Your task to perform on an android device: Search for hotels in Austin Image 0: 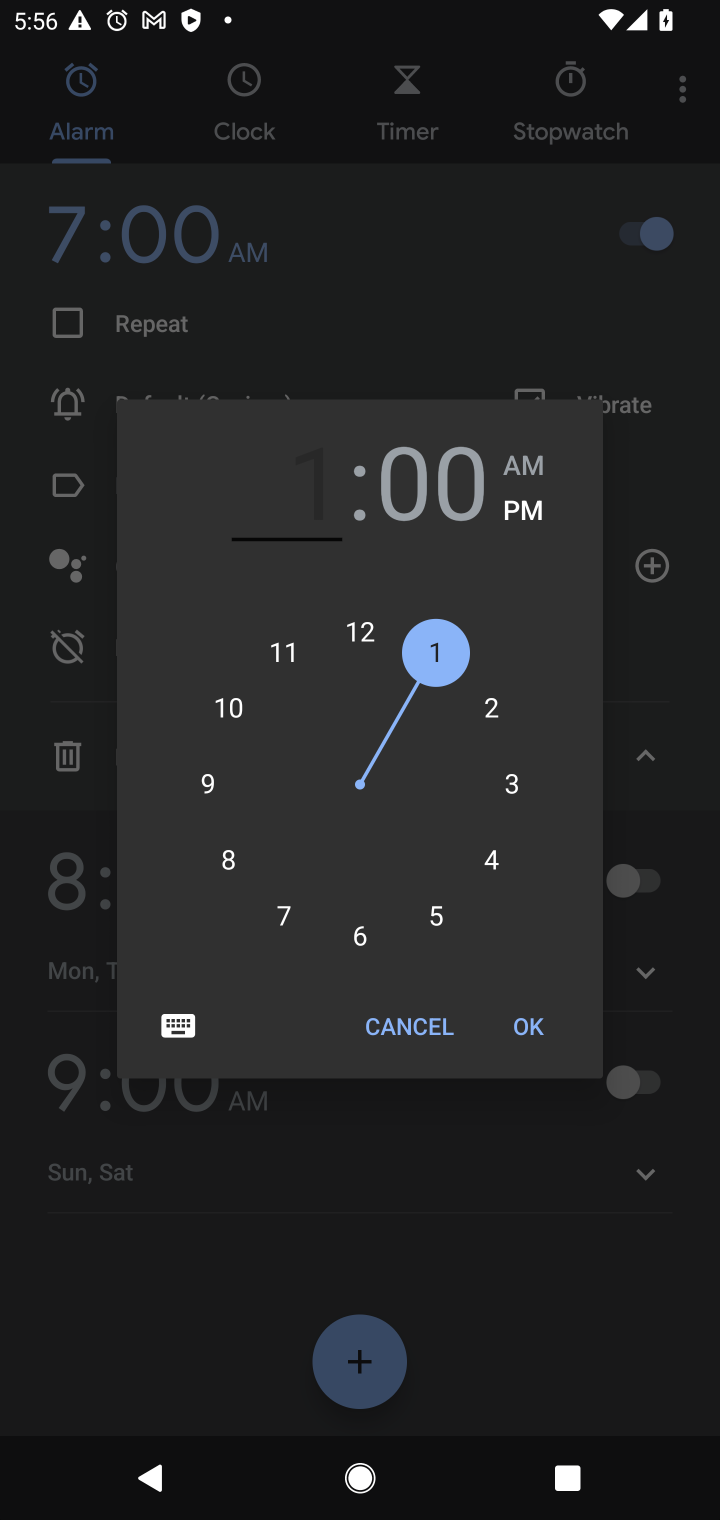
Step 0: press home button
Your task to perform on an android device: Search for hotels in Austin Image 1: 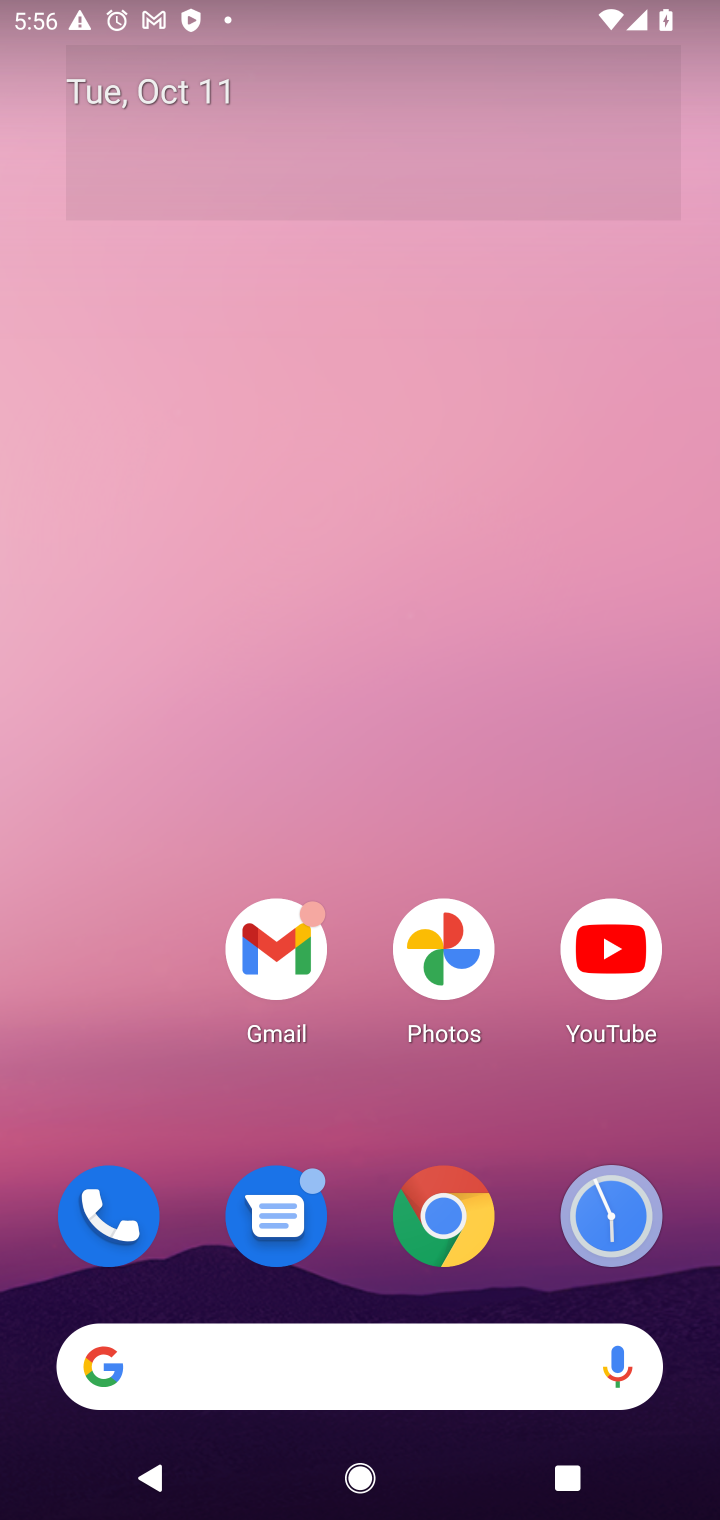
Step 1: click (415, 1217)
Your task to perform on an android device: Search for hotels in Austin Image 2: 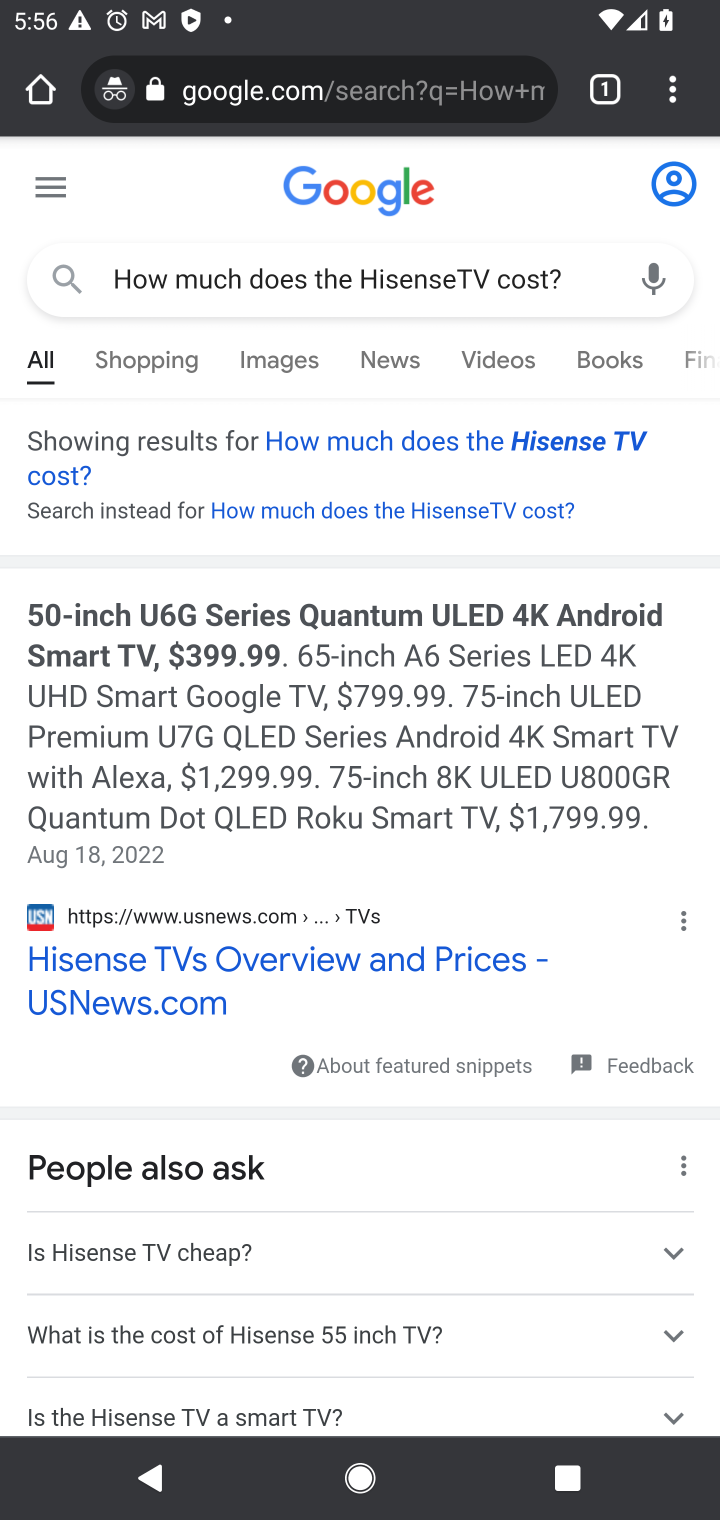
Step 2: click (429, 281)
Your task to perform on an android device: Search for hotels in Austin Image 3: 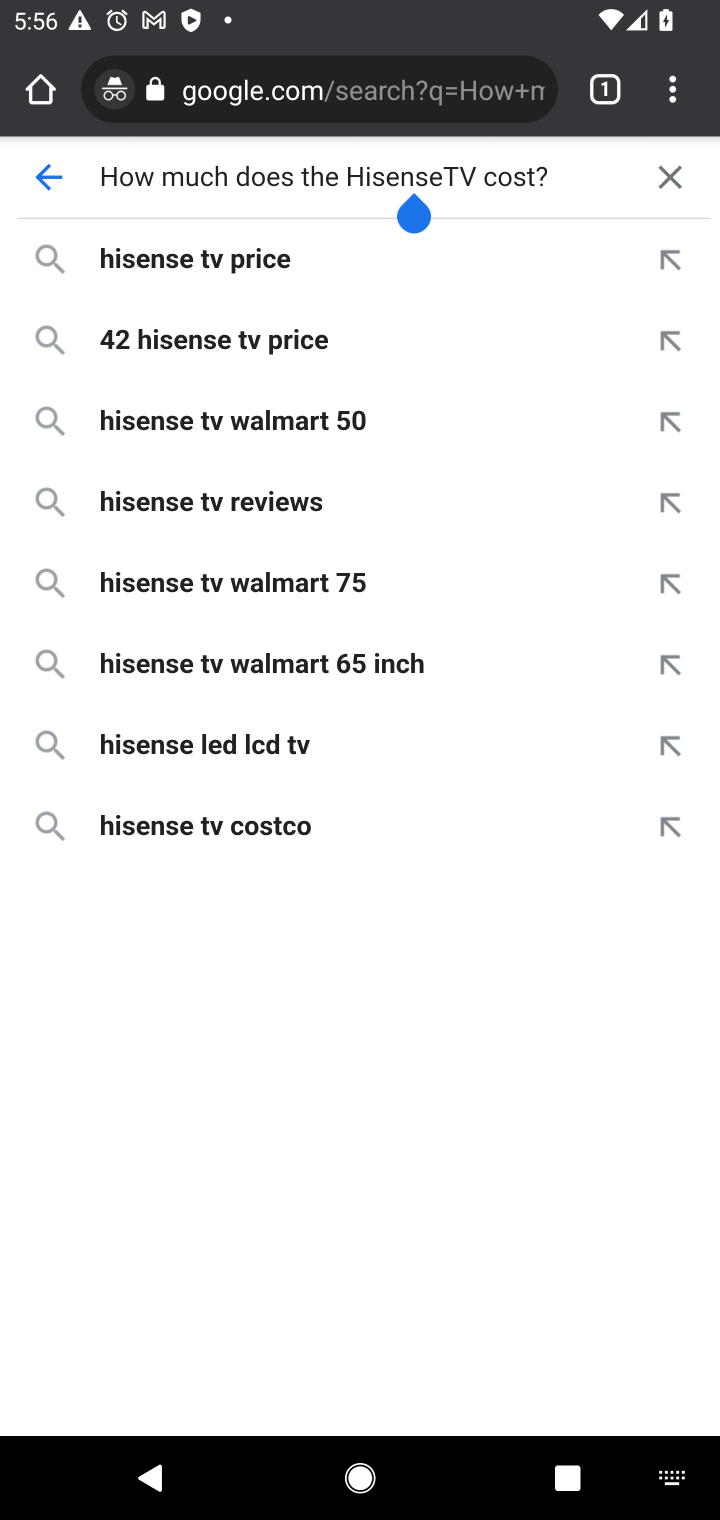
Step 3: click (674, 178)
Your task to perform on an android device: Search for hotels in Austin Image 4: 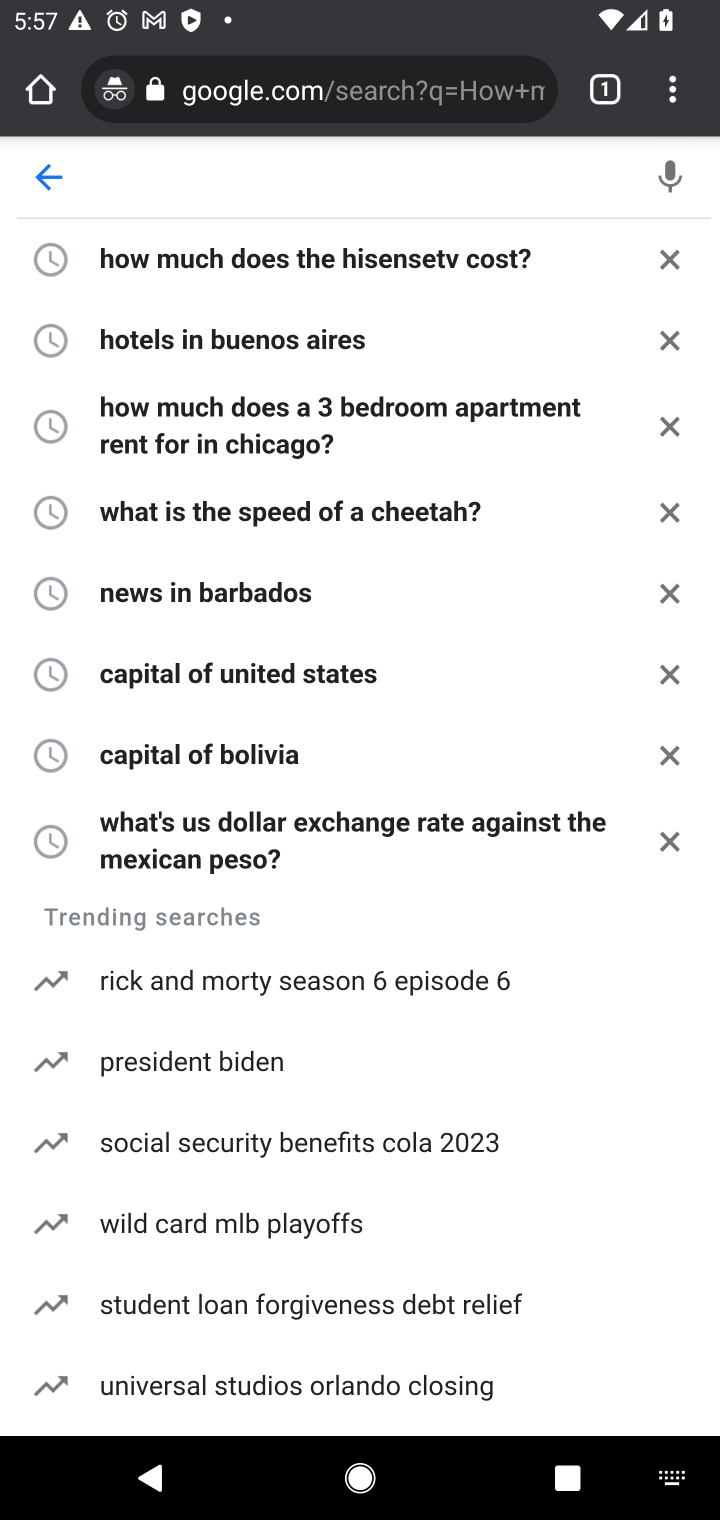
Step 4: type "hotels in Austin"
Your task to perform on an android device: Search for hotels in Austin Image 5: 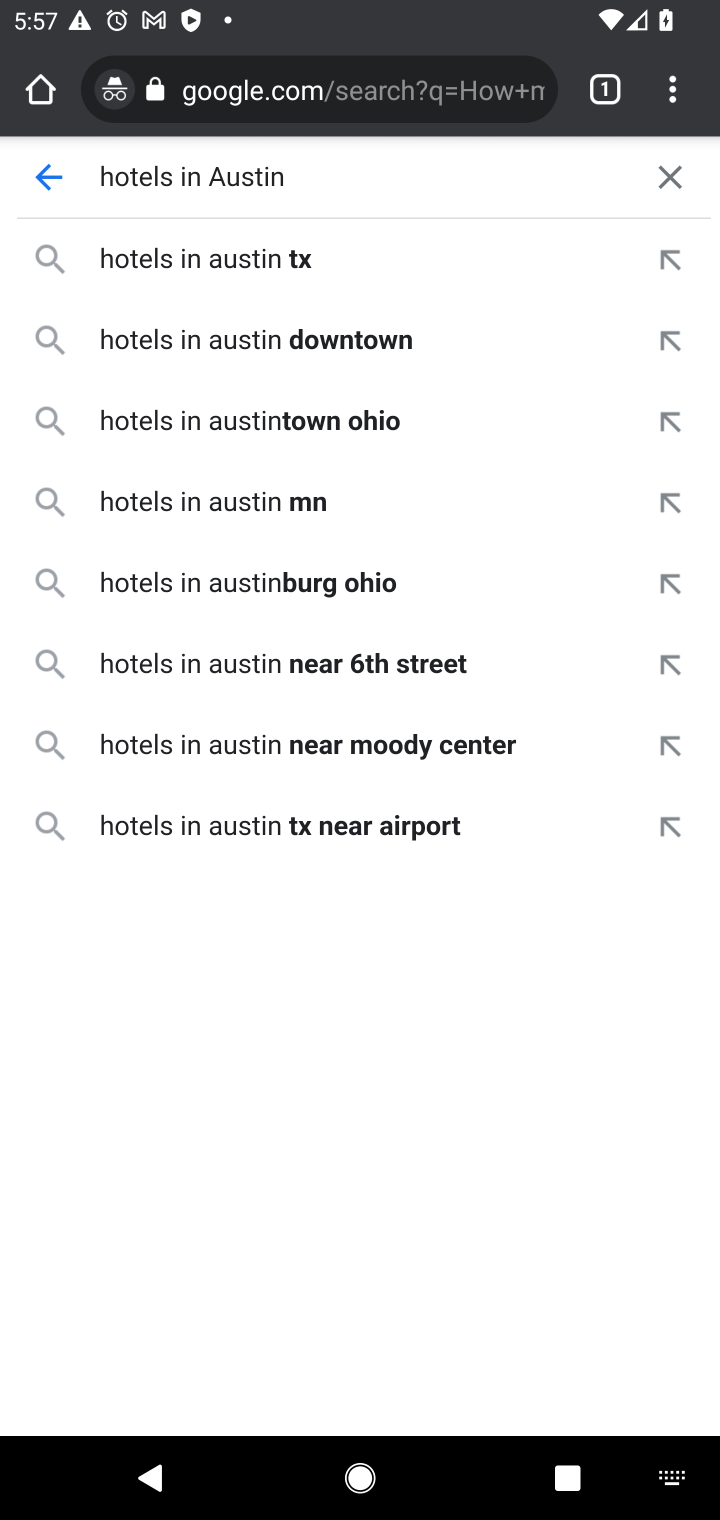
Step 5: press enter
Your task to perform on an android device: Search for hotels in Austin Image 6: 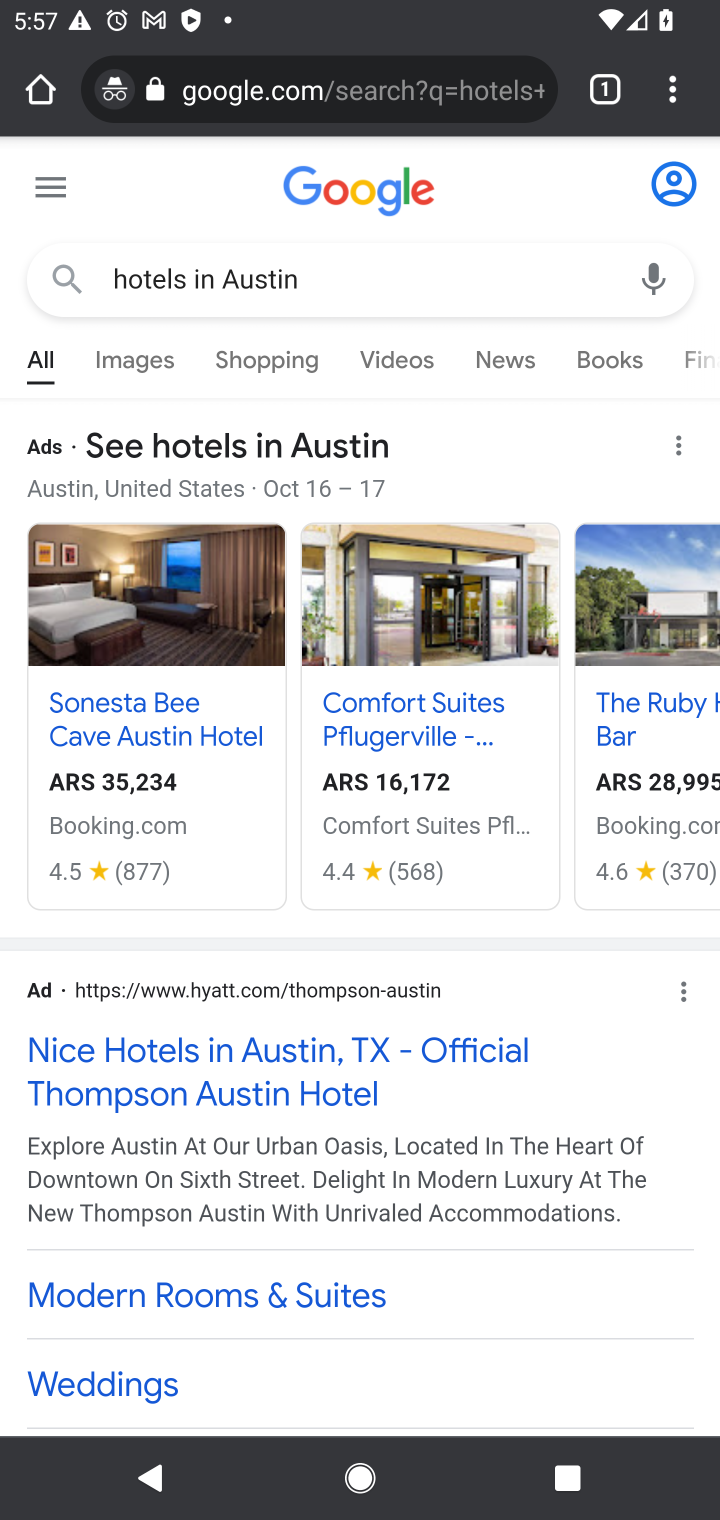
Step 6: task complete